Your task to perform on an android device: turn off improve location accuracy Image 0: 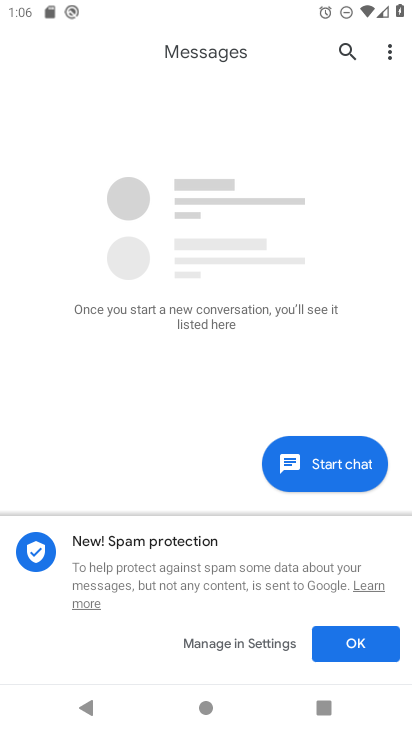
Step 0: press home button
Your task to perform on an android device: turn off improve location accuracy Image 1: 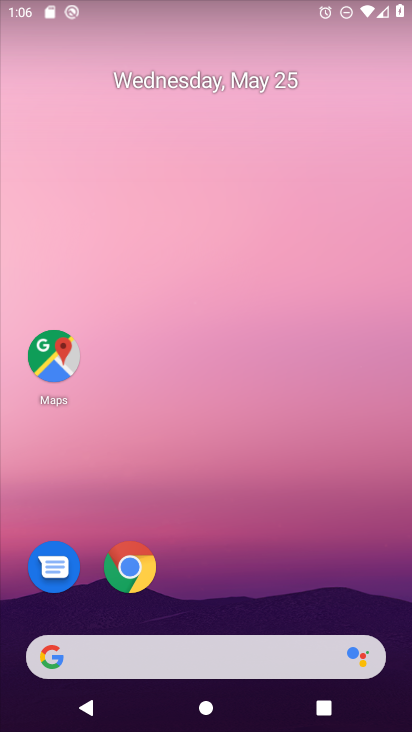
Step 1: drag from (390, 687) to (389, 265)
Your task to perform on an android device: turn off improve location accuracy Image 2: 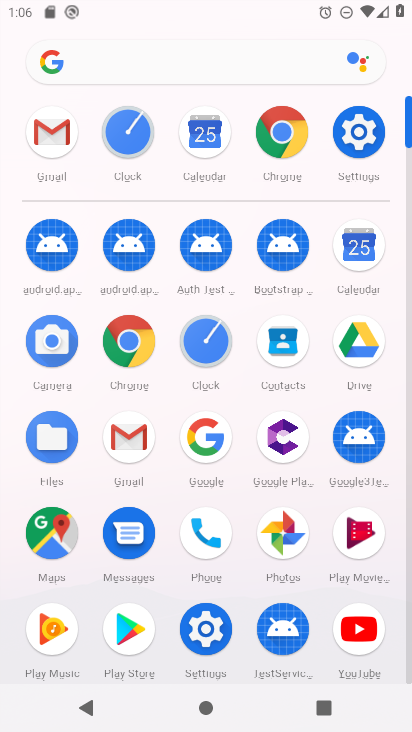
Step 2: click (361, 134)
Your task to perform on an android device: turn off improve location accuracy Image 3: 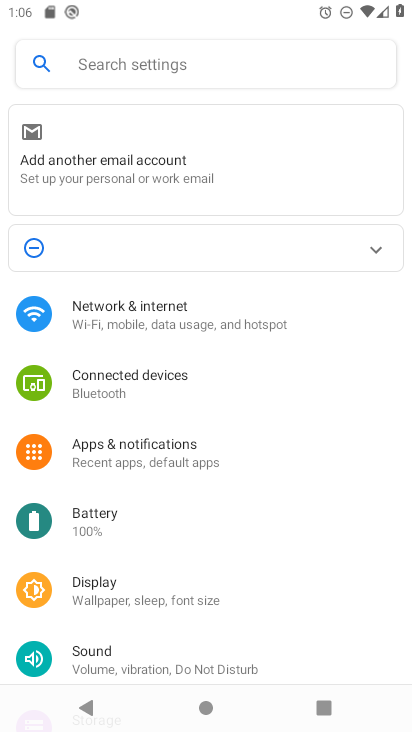
Step 3: drag from (286, 657) to (291, 264)
Your task to perform on an android device: turn off improve location accuracy Image 4: 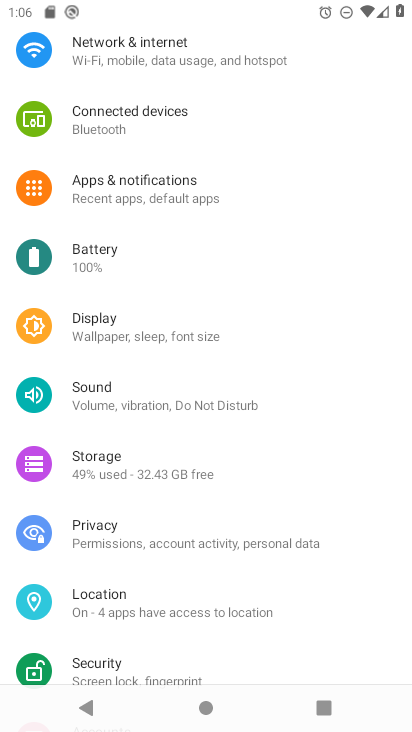
Step 4: click (89, 608)
Your task to perform on an android device: turn off improve location accuracy Image 5: 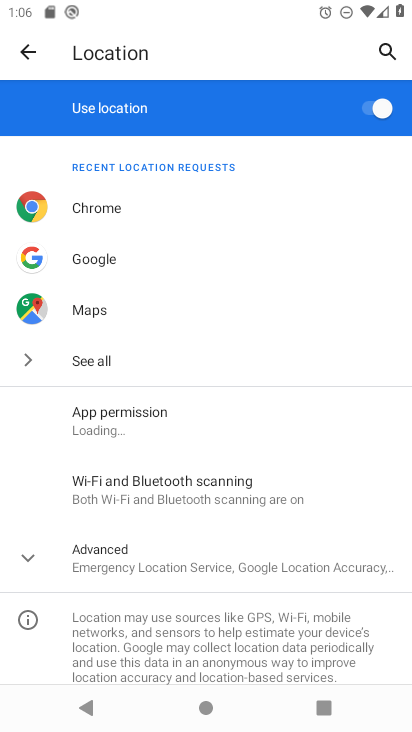
Step 5: drag from (372, 667) to (384, 253)
Your task to perform on an android device: turn off improve location accuracy Image 6: 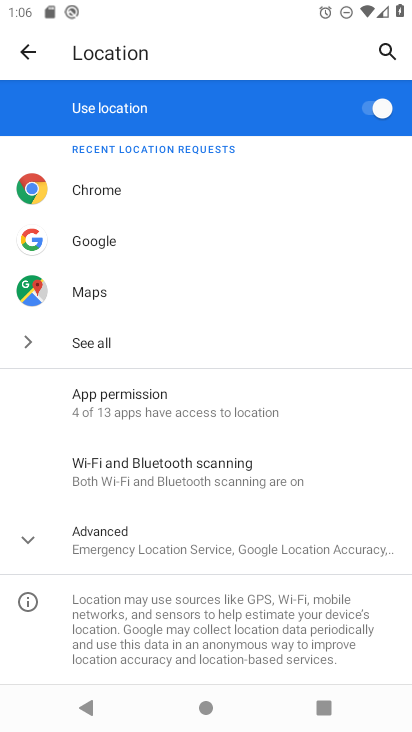
Step 6: click (25, 541)
Your task to perform on an android device: turn off improve location accuracy Image 7: 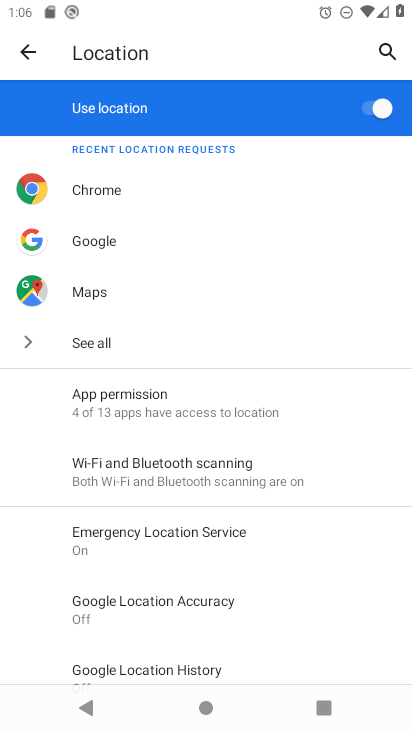
Step 7: drag from (342, 659) to (337, 329)
Your task to perform on an android device: turn off improve location accuracy Image 8: 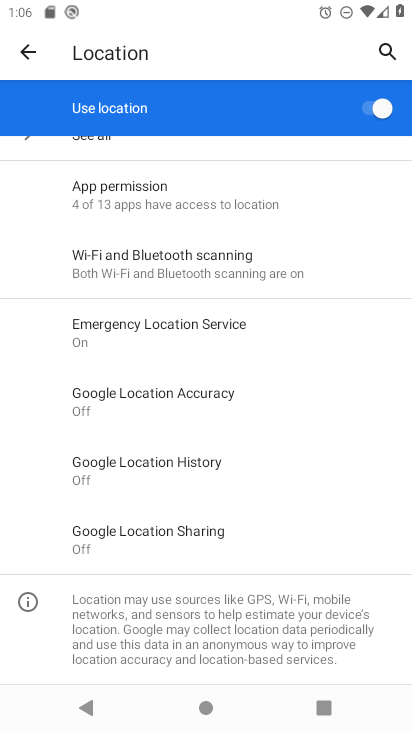
Step 8: click (91, 391)
Your task to perform on an android device: turn off improve location accuracy Image 9: 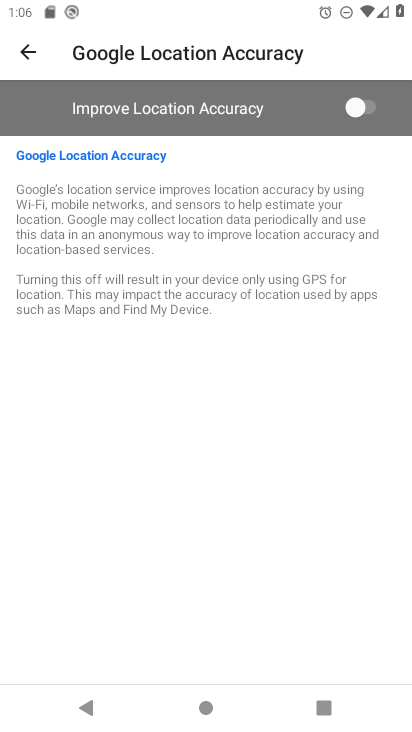
Step 9: task complete